Your task to perform on an android device: Go to sound settings Image 0: 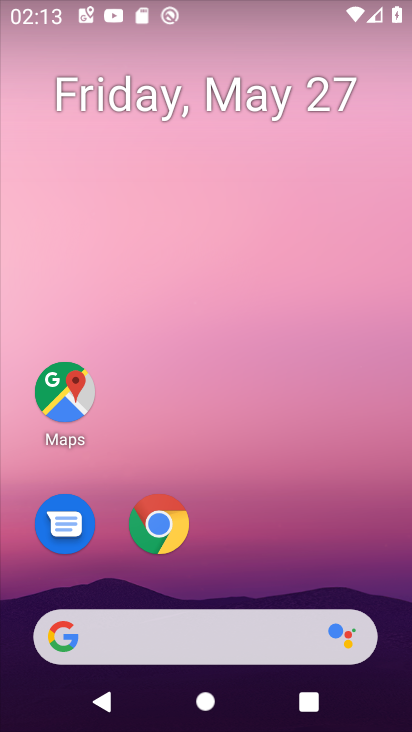
Step 0: drag from (258, 550) to (326, 63)
Your task to perform on an android device: Go to sound settings Image 1: 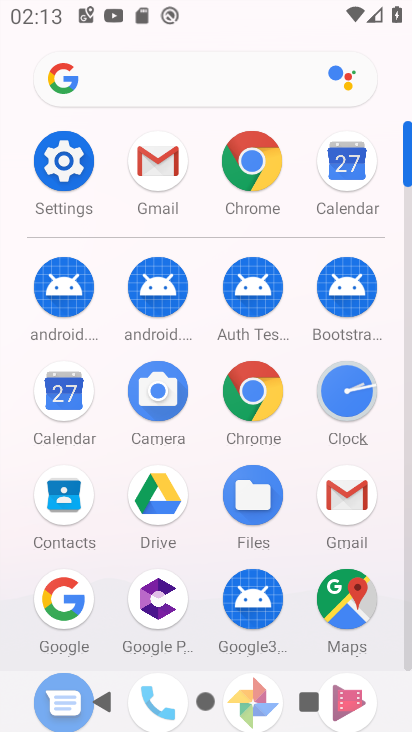
Step 1: click (73, 165)
Your task to perform on an android device: Go to sound settings Image 2: 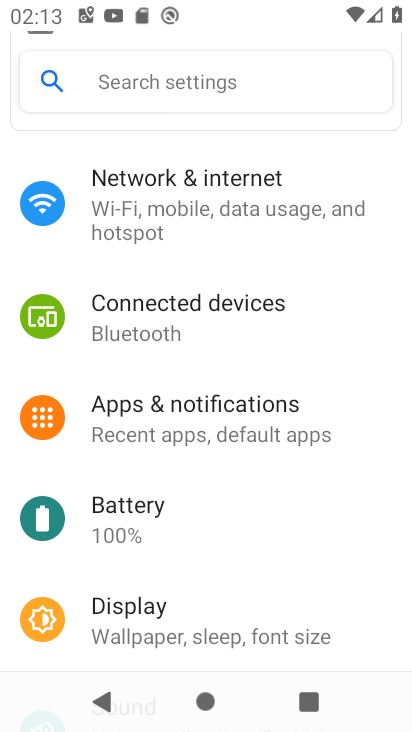
Step 2: drag from (213, 544) to (264, 122)
Your task to perform on an android device: Go to sound settings Image 3: 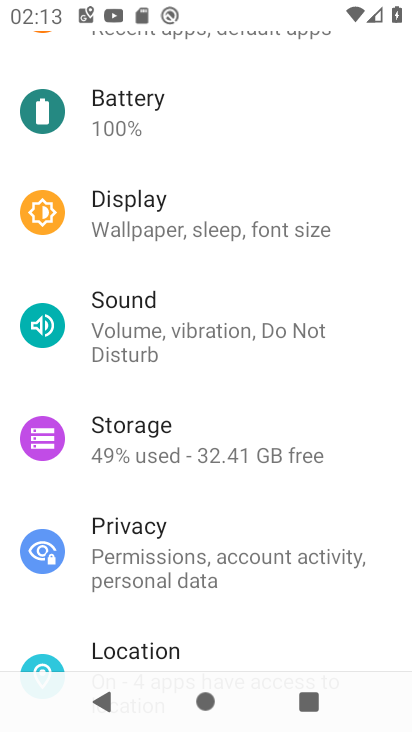
Step 3: click (220, 325)
Your task to perform on an android device: Go to sound settings Image 4: 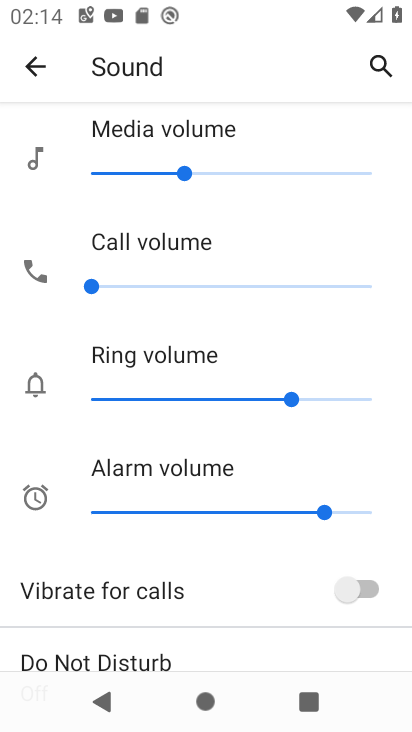
Step 4: task complete